Your task to perform on an android device: check storage Image 0: 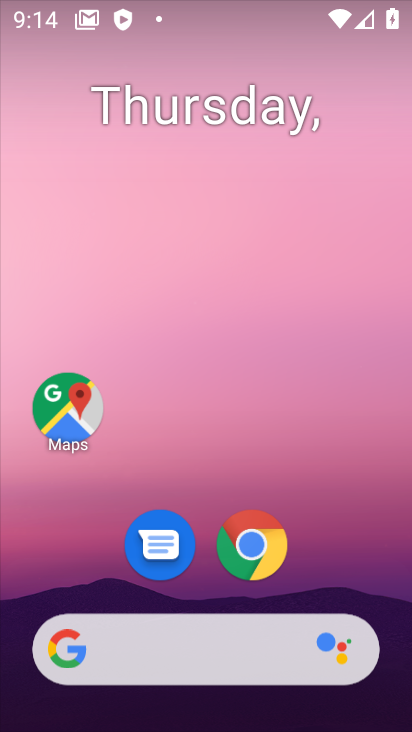
Step 0: drag from (203, 598) to (365, 90)
Your task to perform on an android device: check storage Image 1: 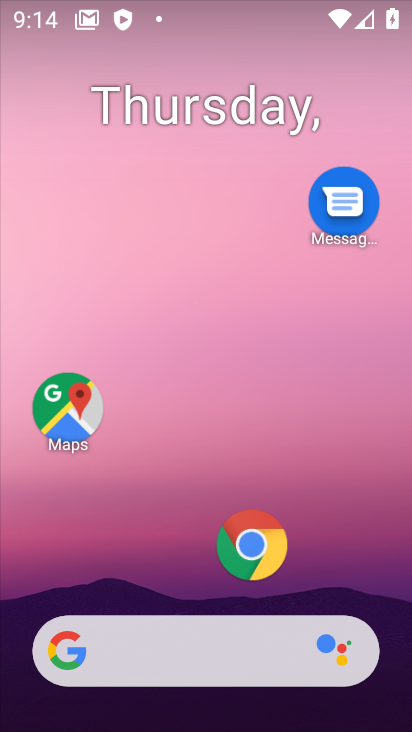
Step 1: drag from (184, 586) to (219, 0)
Your task to perform on an android device: check storage Image 2: 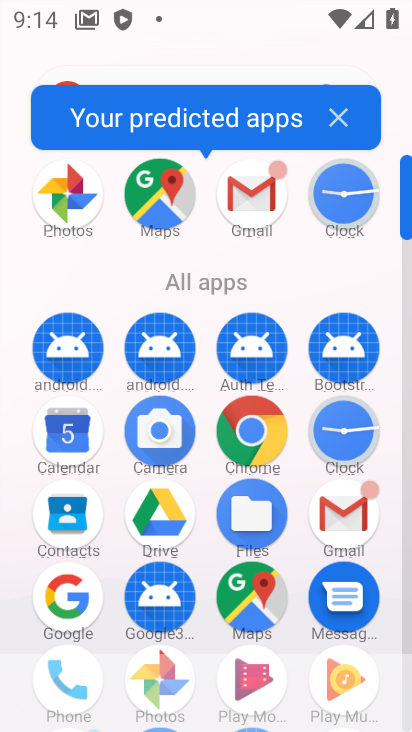
Step 2: drag from (107, 568) to (165, 101)
Your task to perform on an android device: check storage Image 3: 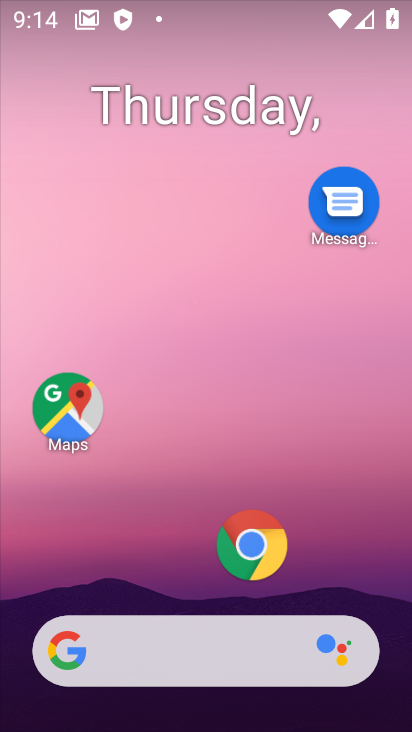
Step 3: drag from (184, 583) to (201, 17)
Your task to perform on an android device: check storage Image 4: 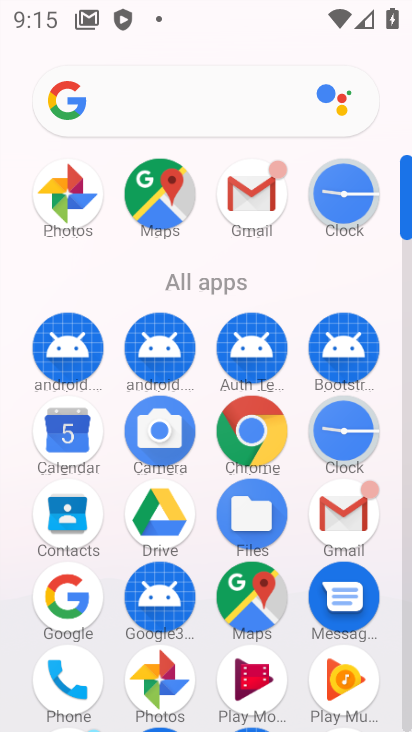
Step 4: click (405, 648)
Your task to perform on an android device: check storage Image 5: 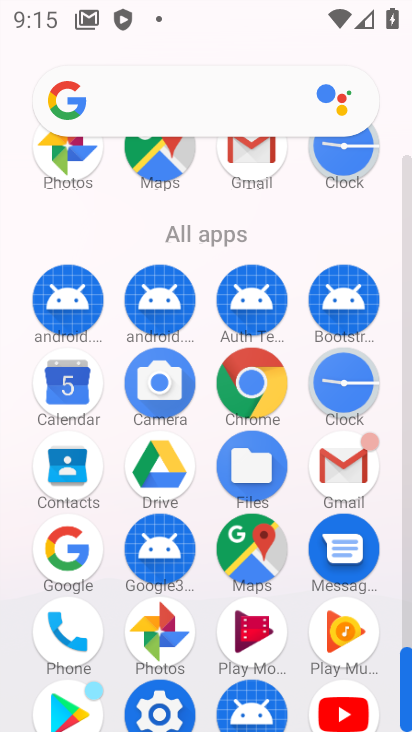
Step 5: click (166, 711)
Your task to perform on an android device: check storage Image 6: 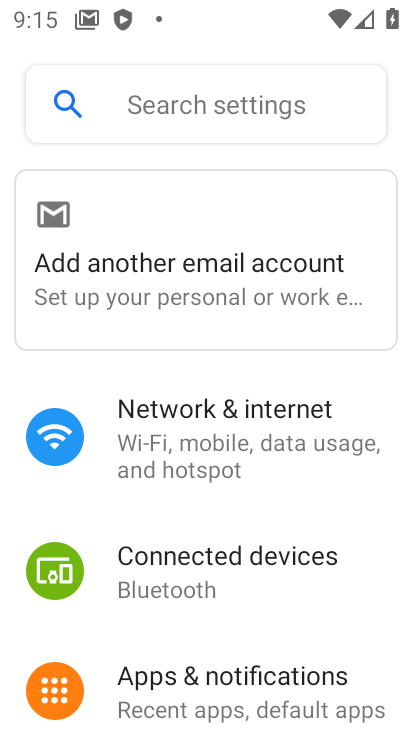
Step 6: drag from (340, 619) to (366, 190)
Your task to perform on an android device: check storage Image 7: 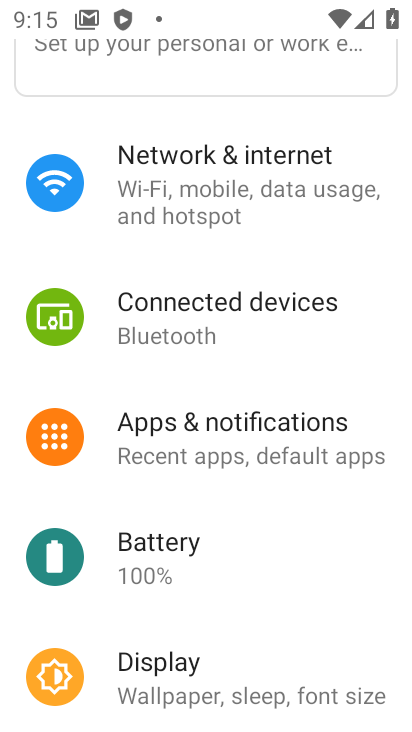
Step 7: drag from (228, 599) to (160, 139)
Your task to perform on an android device: check storage Image 8: 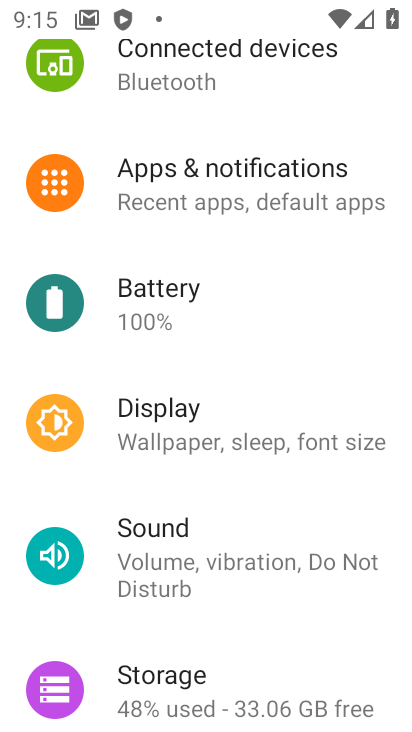
Step 8: click (163, 700)
Your task to perform on an android device: check storage Image 9: 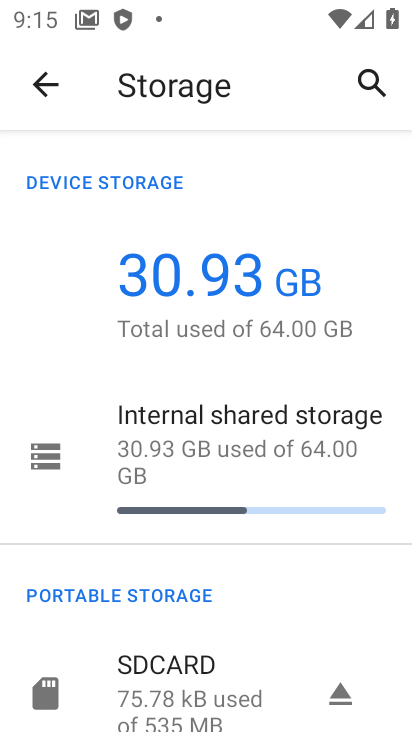
Step 9: task complete